Your task to perform on an android device: Open calendar and show me the fourth week of next month Image 0: 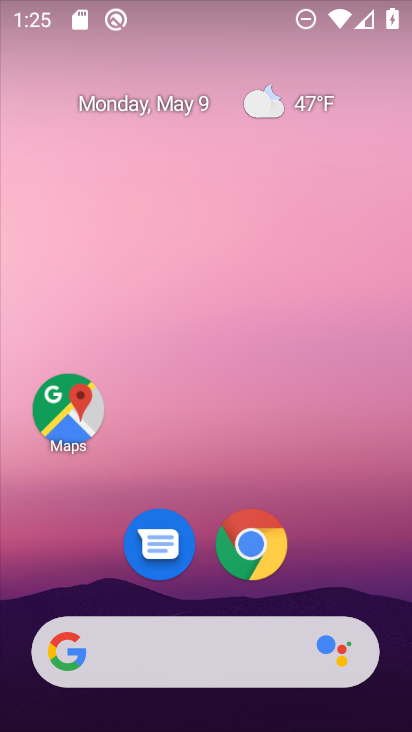
Step 0: drag from (332, 502) to (319, 92)
Your task to perform on an android device: Open calendar and show me the fourth week of next month Image 1: 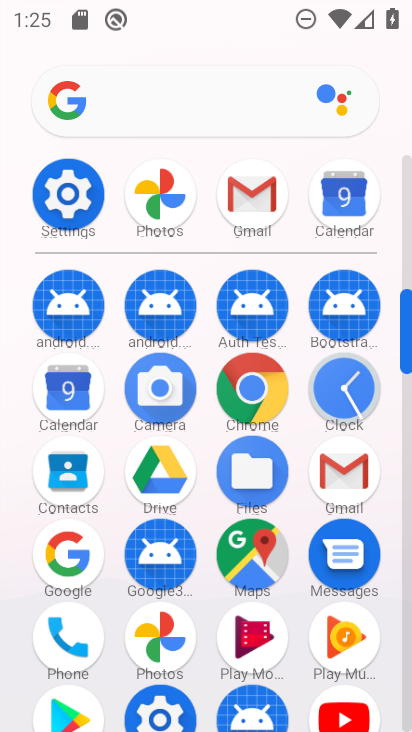
Step 1: click (72, 379)
Your task to perform on an android device: Open calendar and show me the fourth week of next month Image 2: 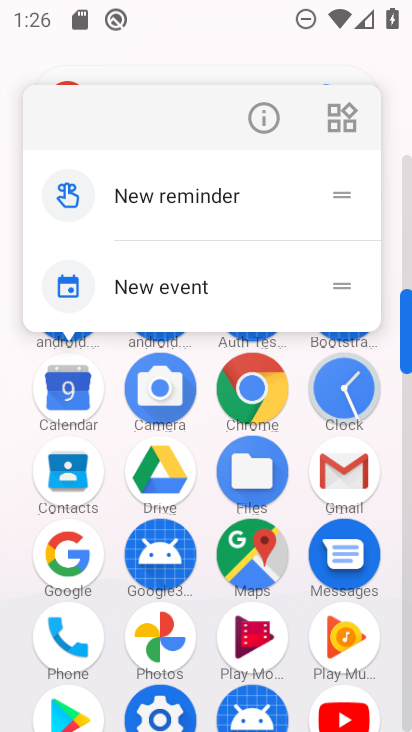
Step 2: click (66, 403)
Your task to perform on an android device: Open calendar and show me the fourth week of next month Image 3: 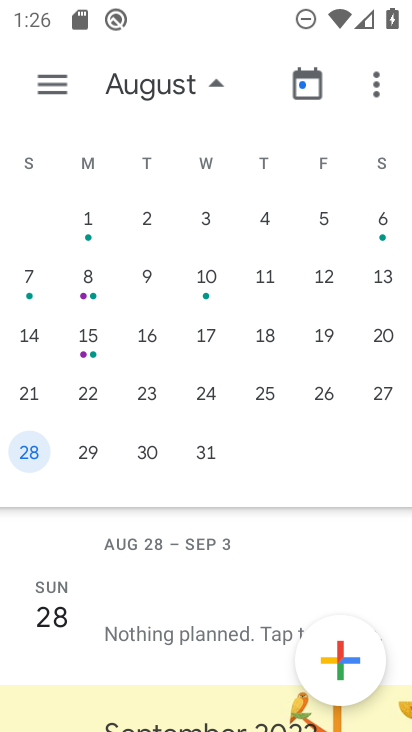
Step 3: click (25, 452)
Your task to perform on an android device: Open calendar and show me the fourth week of next month Image 4: 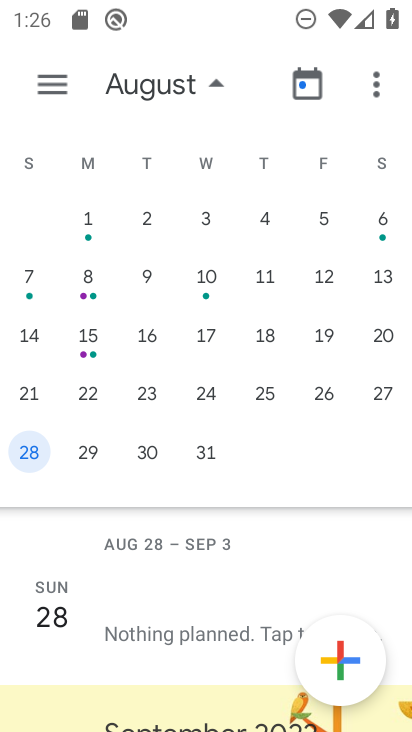
Step 4: task complete